Your task to perform on an android device: Do I have any events tomorrow? Image 0: 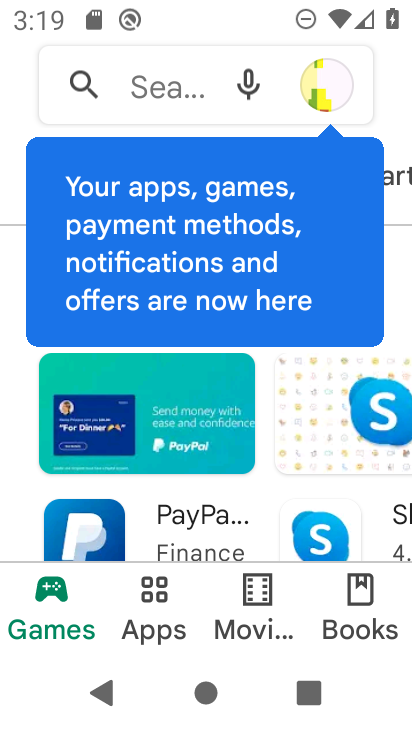
Step 0: press home button
Your task to perform on an android device: Do I have any events tomorrow? Image 1: 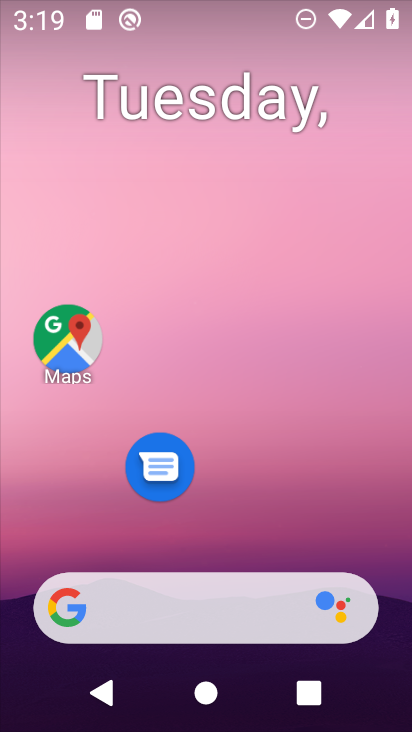
Step 1: drag from (266, 517) to (199, 86)
Your task to perform on an android device: Do I have any events tomorrow? Image 2: 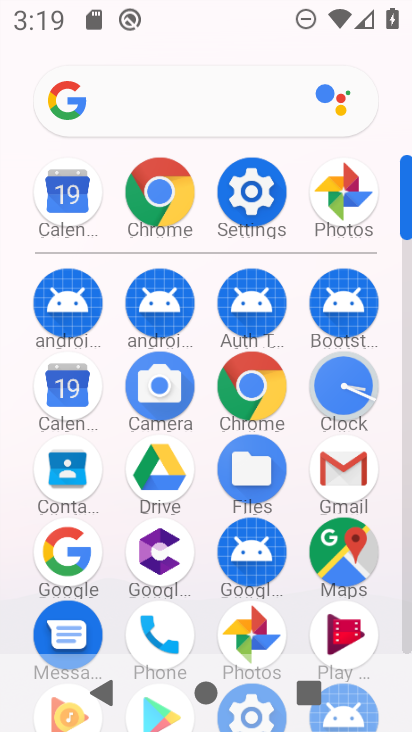
Step 2: click (65, 392)
Your task to perform on an android device: Do I have any events tomorrow? Image 3: 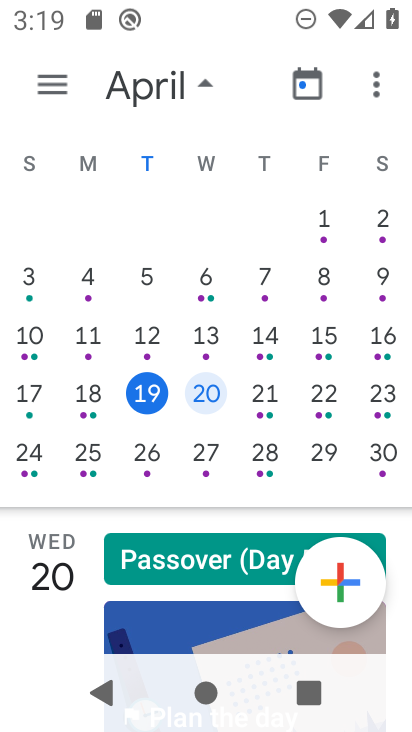
Step 3: click (206, 399)
Your task to perform on an android device: Do I have any events tomorrow? Image 4: 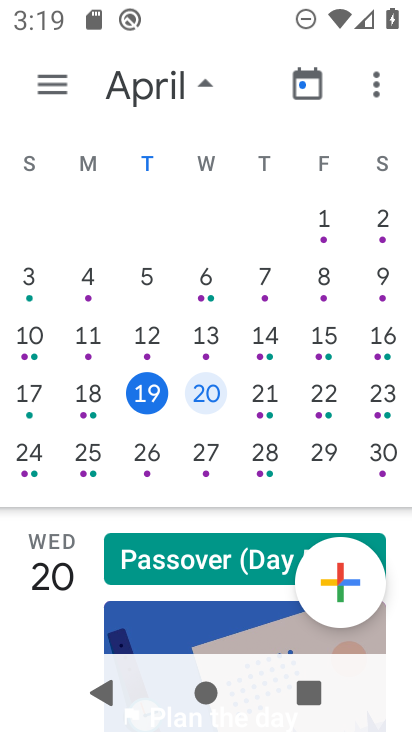
Step 4: click (204, 400)
Your task to perform on an android device: Do I have any events tomorrow? Image 5: 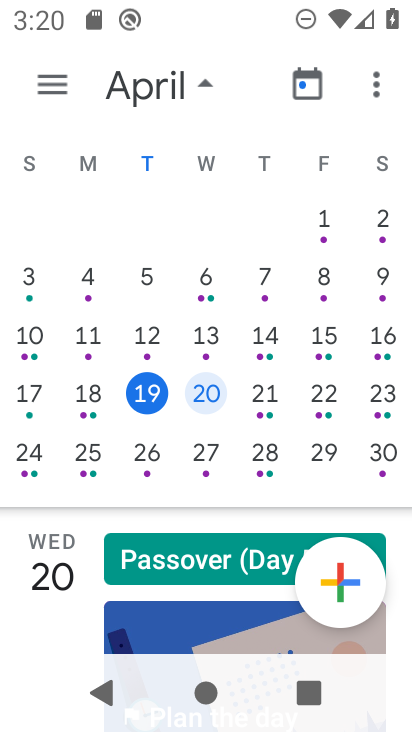
Step 5: task complete